Your task to perform on an android device: Go to settings Image 0: 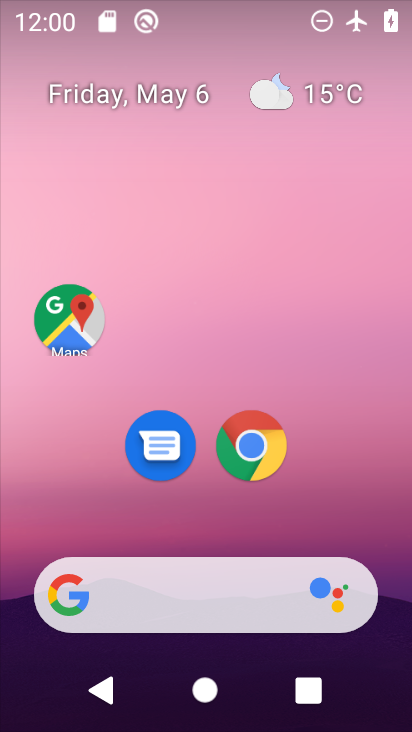
Step 0: drag from (217, 535) to (200, 38)
Your task to perform on an android device: Go to settings Image 1: 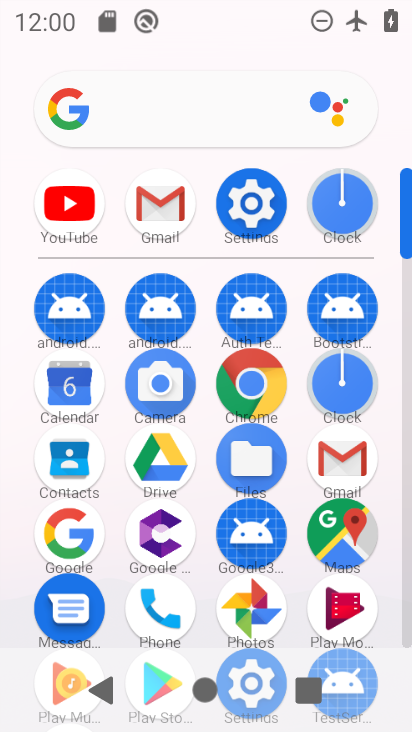
Step 1: click (250, 202)
Your task to perform on an android device: Go to settings Image 2: 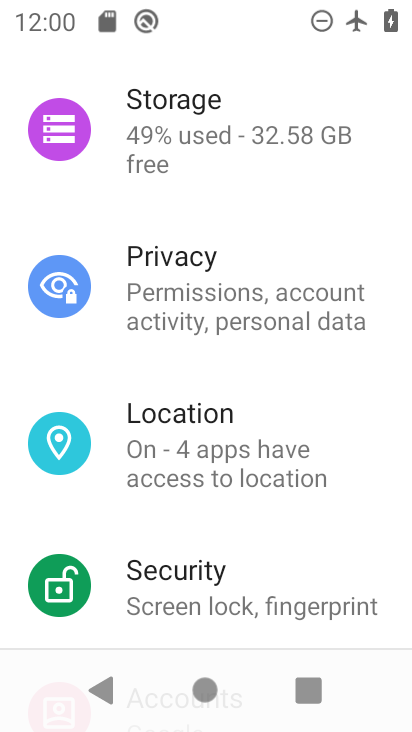
Step 2: task complete